Your task to perform on an android device: Open the phone app and click the voicemail tab. Image 0: 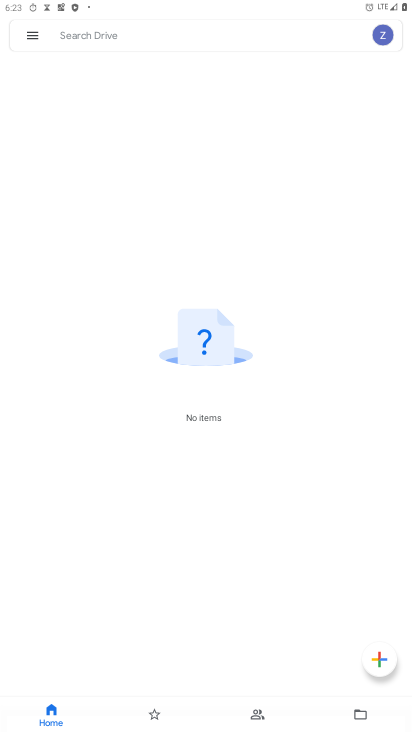
Step 0: press home button
Your task to perform on an android device: Open the phone app and click the voicemail tab. Image 1: 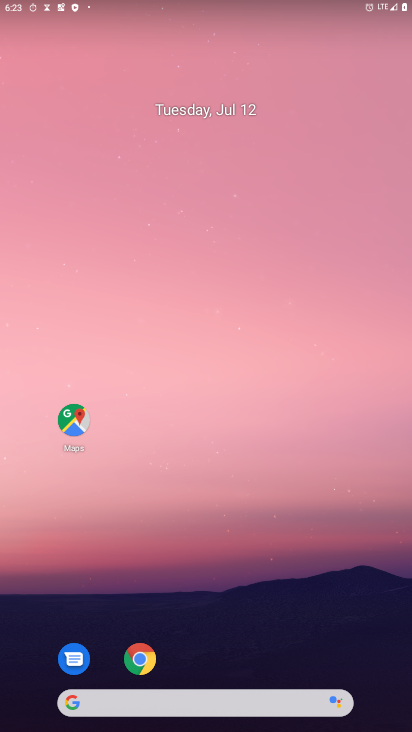
Step 1: drag from (240, 243) to (242, 165)
Your task to perform on an android device: Open the phone app and click the voicemail tab. Image 2: 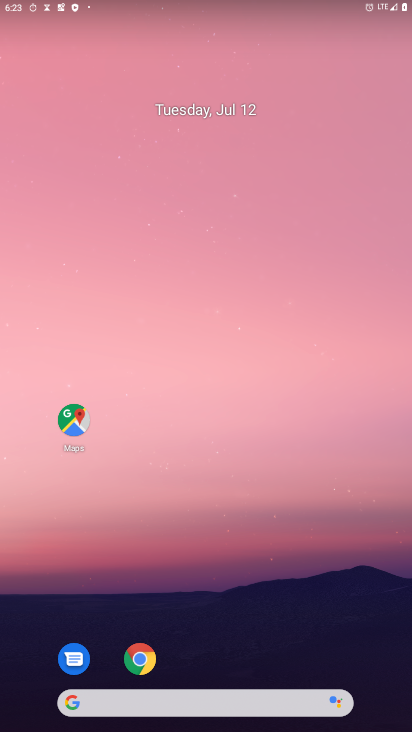
Step 2: drag from (204, 374) to (230, 132)
Your task to perform on an android device: Open the phone app and click the voicemail tab. Image 3: 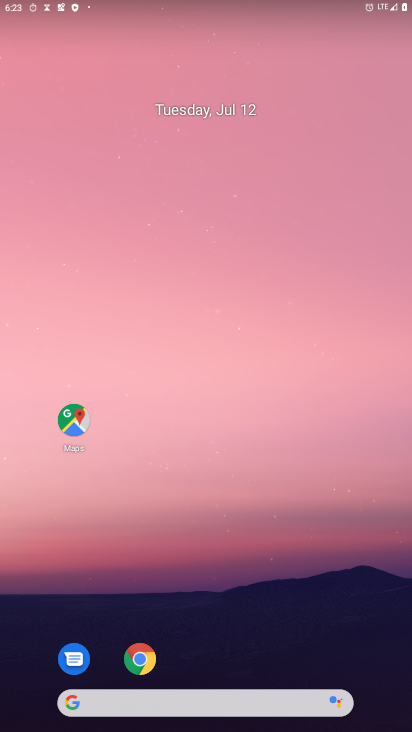
Step 3: drag from (208, 545) to (199, 77)
Your task to perform on an android device: Open the phone app and click the voicemail tab. Image 4: 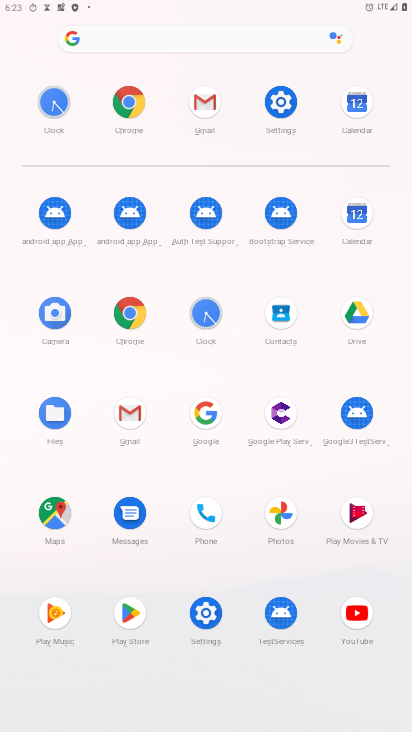
Step 4: click (212, 517)
Your task to perform on an android device: Open the phone app and click the voicemail tab. Image 5: 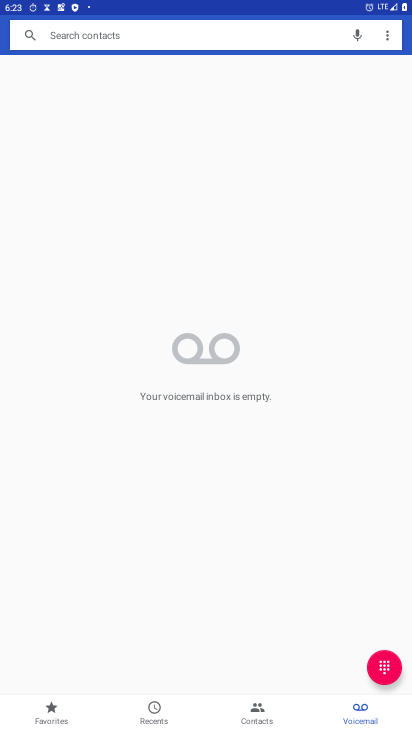
Step 5: click (352, 722)
Your task to perform on an android device: Open the phone app and click the voicemail tab. Image 6: 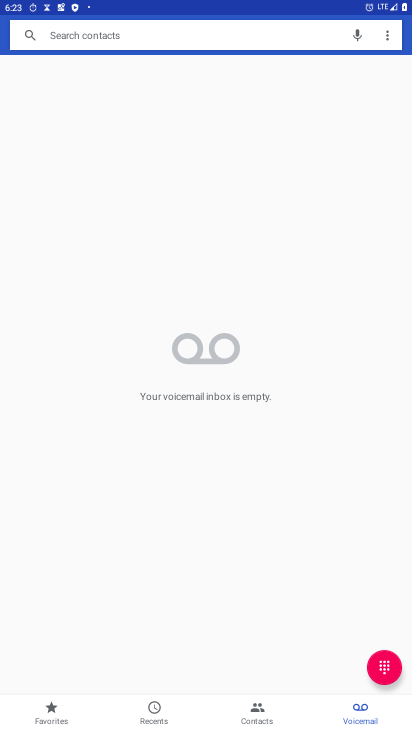
Step 6: task complete